Your task to perform on an android device: delete browsing data in the chrome app Image 0: 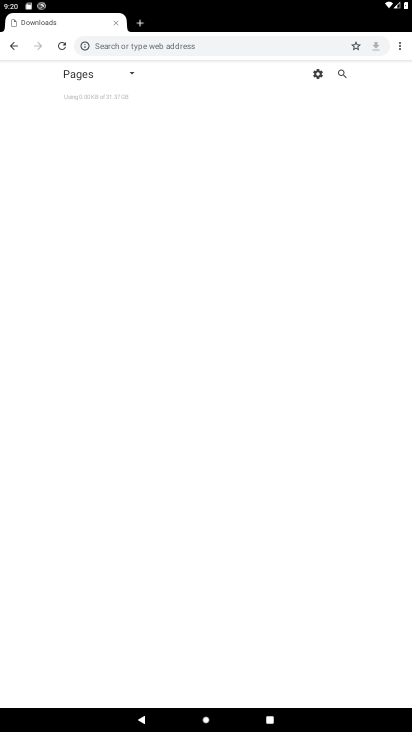
Step 0: click (402, 52)
Your task to perform on an android device: delete browsing data in the chrome app Image 1: 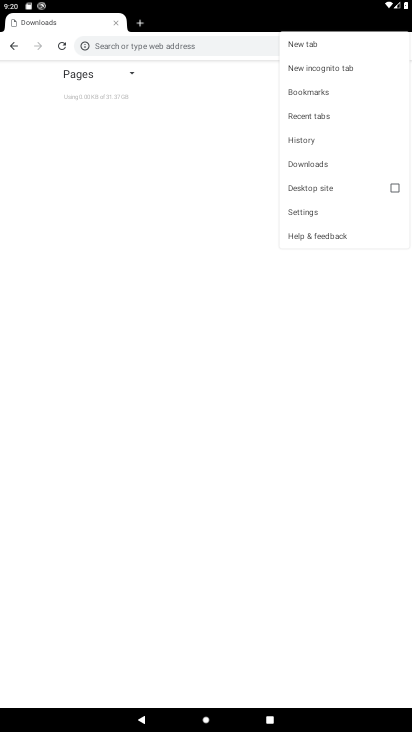
Step 1: click (367, 141)
Your task to perform on an android device: delete browsing data in the chrome app Image 2: 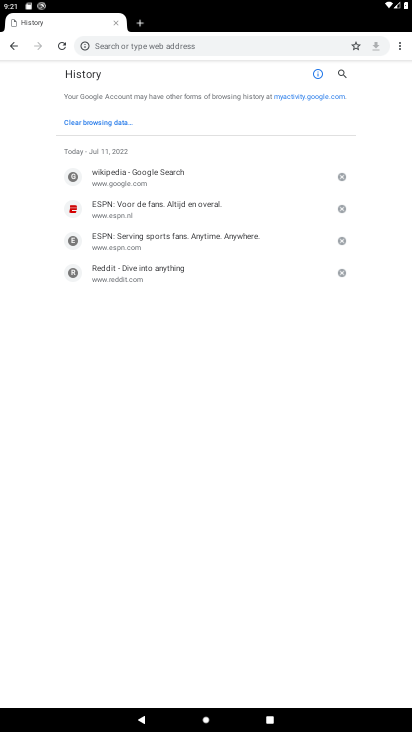
Step 2: click (117, 123)
Your task to perform on an android device: delete browsing data in the chrome app Image 3: 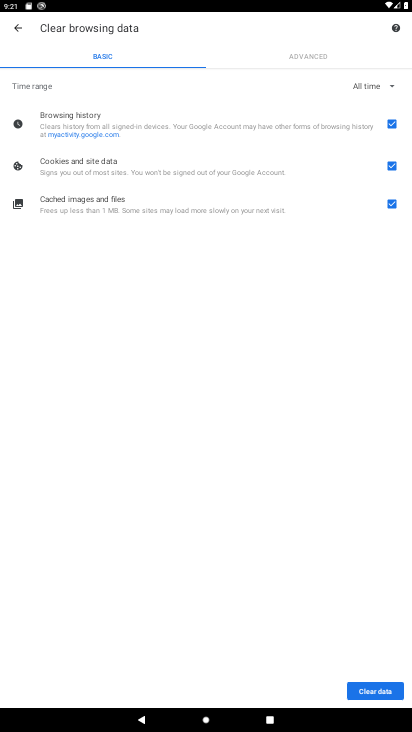
Step 3: click (393, 201)
Your task to perform on an android device: delete browsing data in the chrome app Image 4: 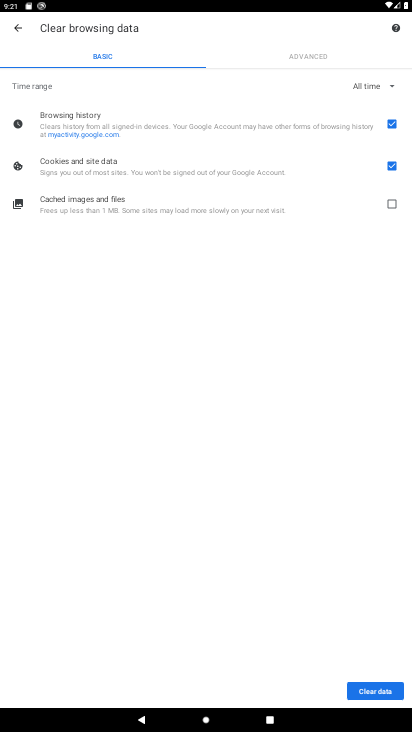
Step 4: click (392, 164)
Your task to perform on an android device: delete browsing data in the chrome app Image 5: 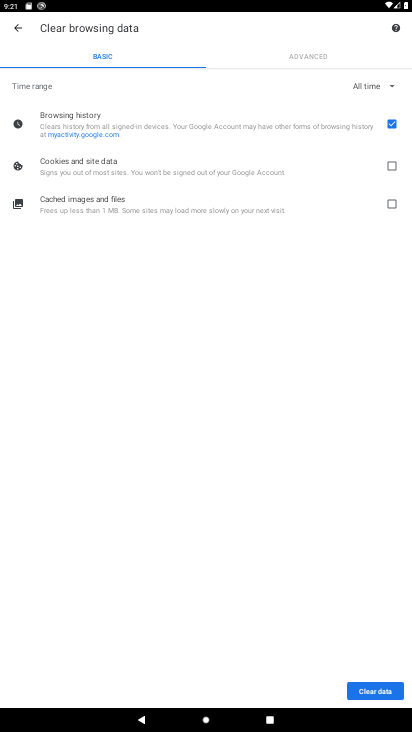
Step 5: click (377, 692)
Your task to perform on an android device: delete browsing data in the chrome app Image 6: 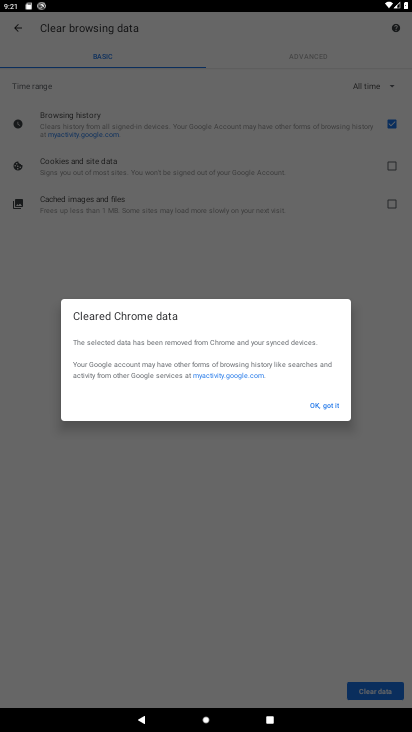
Step 6: click (388, 689)
Your task to perform on an android device: delete browsing data in the chrome app Image 7: 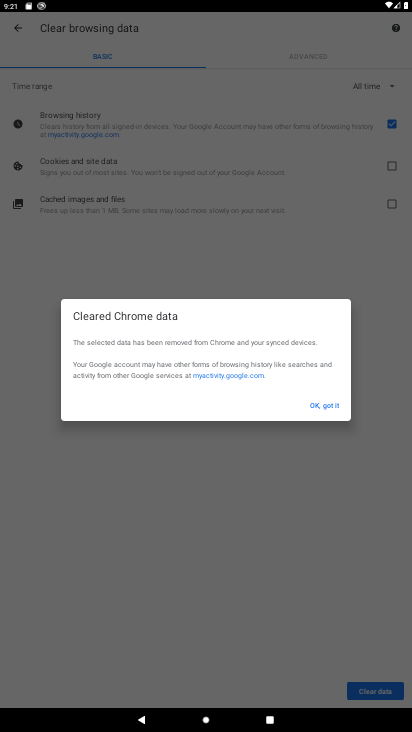
Step 7: click (328, 402)
Your task to perform on an android device: delete browsing data in the chrome app Image 8: 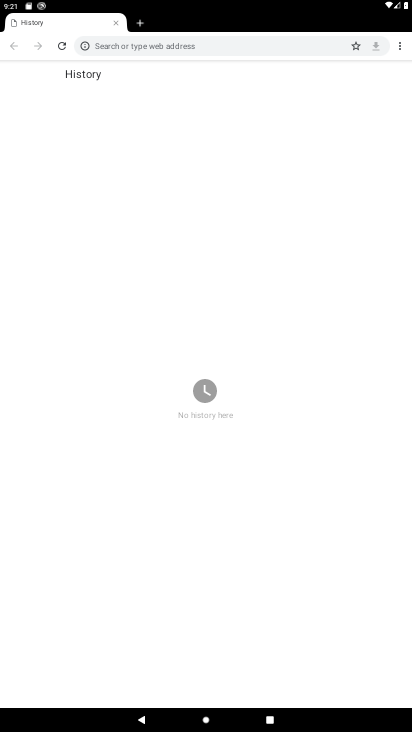
Step 8: task complete